Your task to perform on an android device: all mails in gmail Image 0: 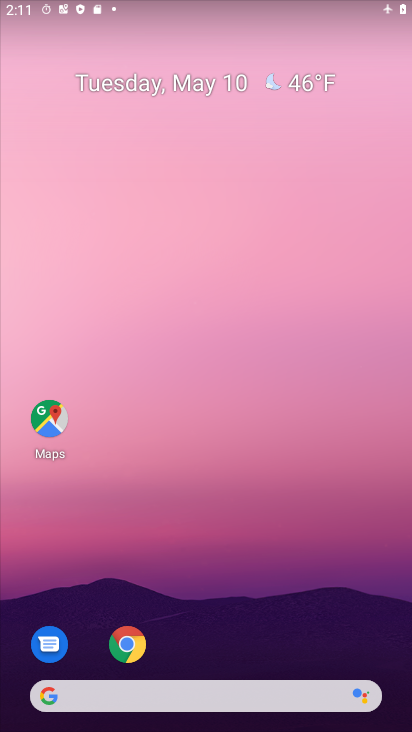
Step 0: drag from (214, 658) to (191, 294)
Your task to perform on an android device: all mails in gmail Image 1: 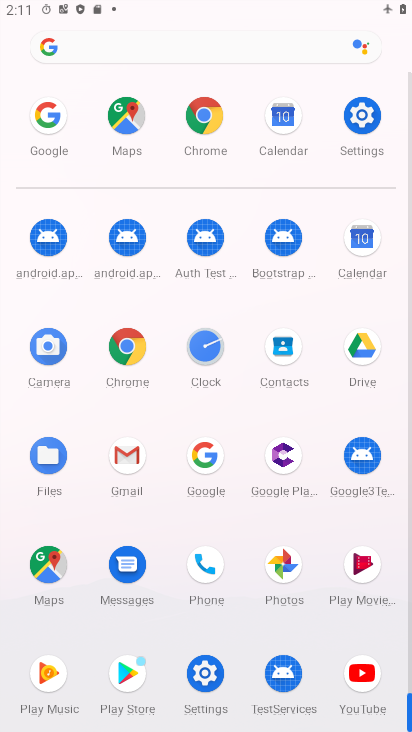
Step 1: click (129, 474)
Your task to perform on an android device: all mails in gmail Image 2: 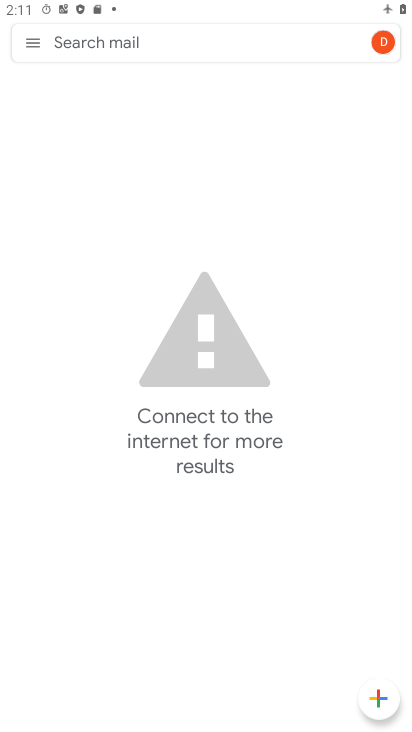
Step 2: click (37, 51)
Your task to perform on an android device: all mails in gmail Image 3: 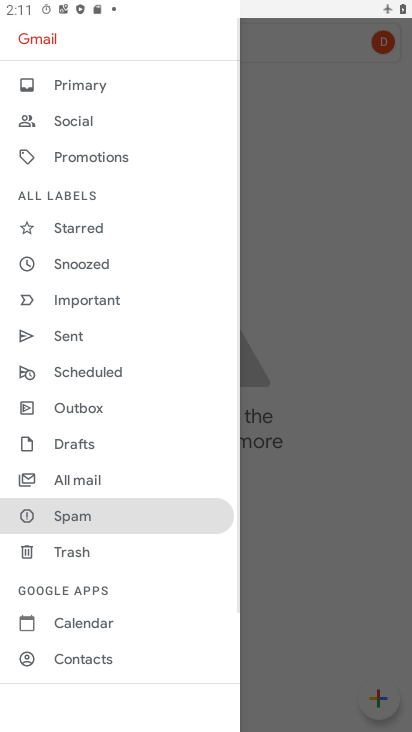
Step 3: click (100, 480)
Your task to perform on an android device: all mails in gmail Image 4: 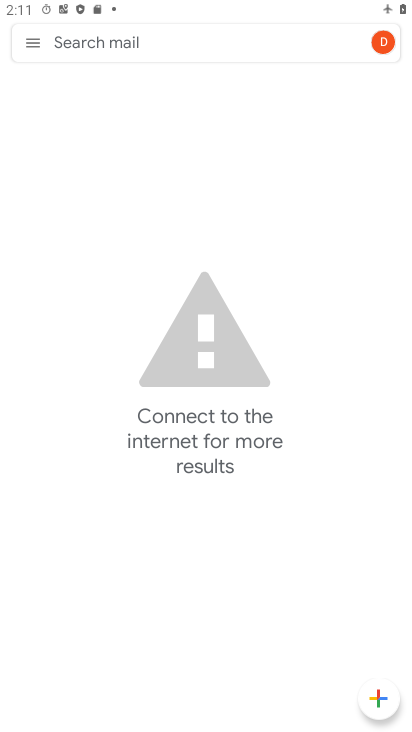
Step 4: task complete